Your task to perform on an android device: turn off priority inbox in the gmail app Image 0: 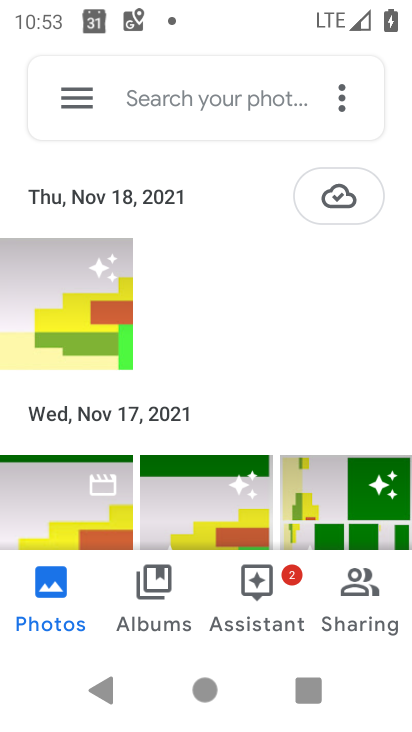
Step 0: press home button
Your task to perform on an android device: turn off priority inbox in the gmail app Image 1: 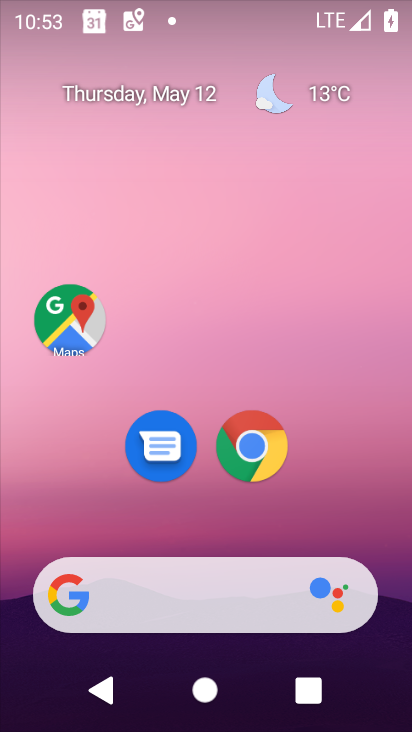
Step 1: drag from (291, 617) to (236, 42)
Your task to perform on an android device: turn off priority inbox in the gmail app Image 2: 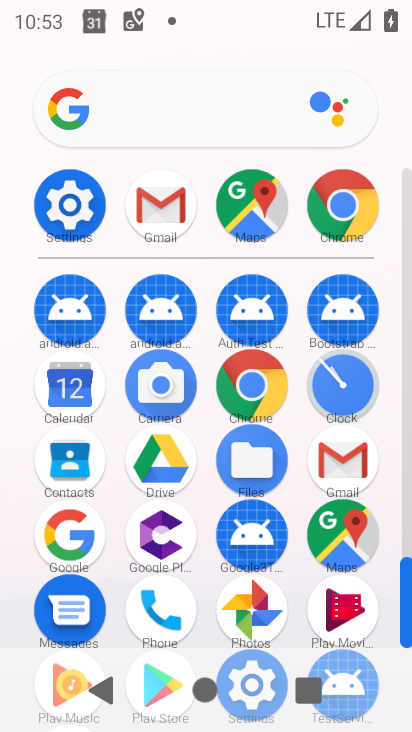
Step 2: click (357, 457)
Your task to perform on an android device: turn off priority inbox in the gmail app Image 3: 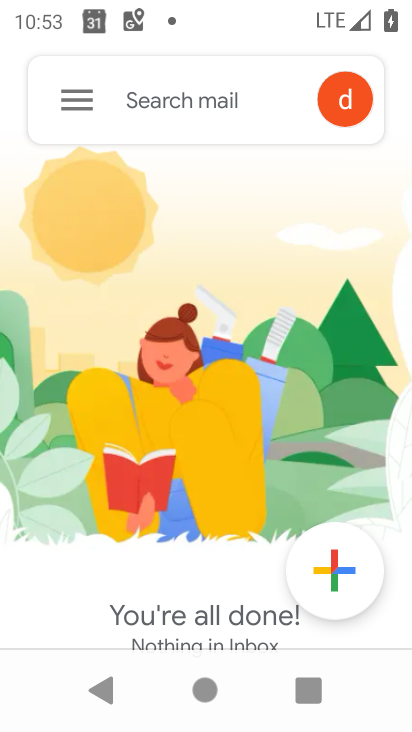
Step 3: click (88, 95)
Your task to perform on an android device: turn off priority inbox in the gmail app Image 4: 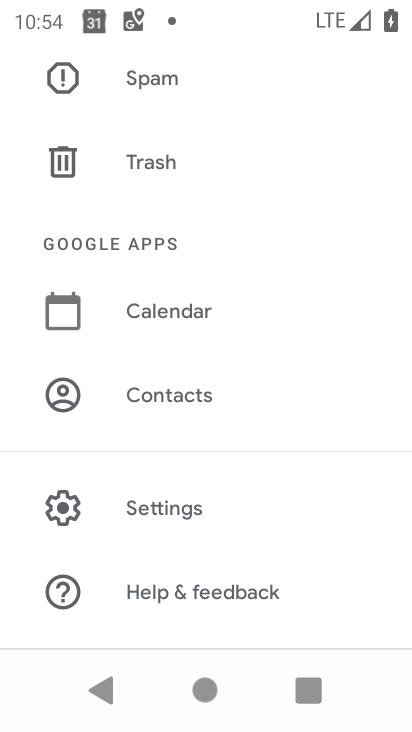
Step 4: click (233, 517)
Your task to perform on an android device: turn off priority inbox in the gmail app Image 5: 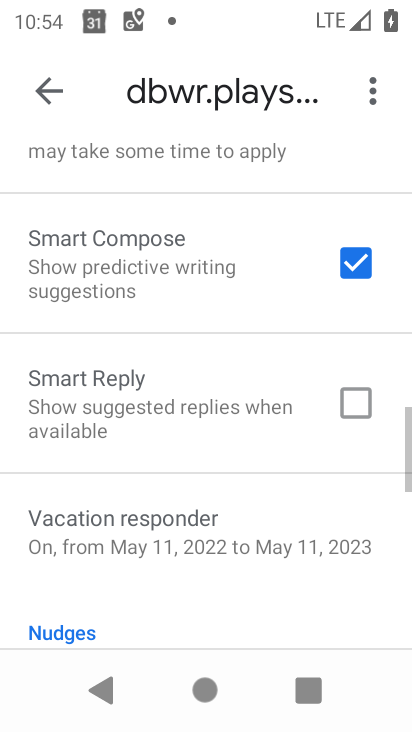
Step 5: drag from (167, 263) to (340, 729)
Your task to perform on an android device: turn off priority inbox in the gmail app Image 6: 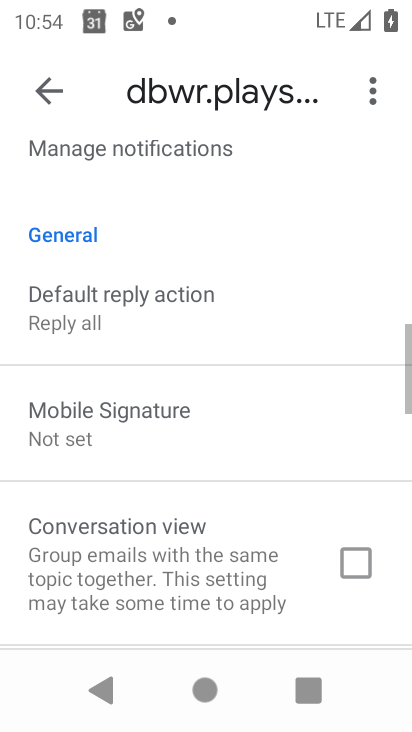
Step 6: drag from (194, 243) to (229, 651)
Your task to perform on an android device: turn off priority inbox in the gmail app Image 7: 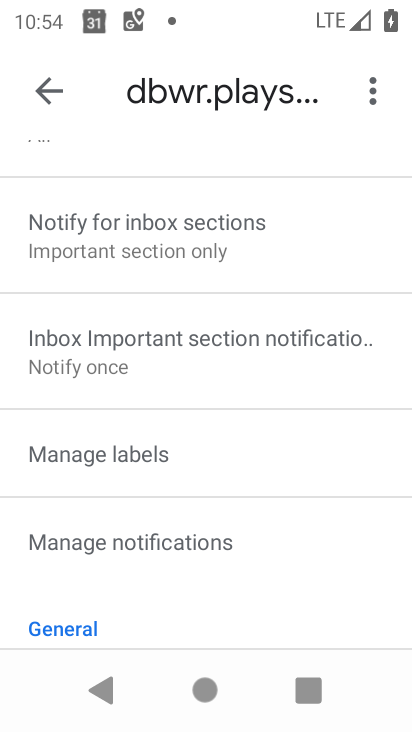
Step 7: drag from (155, 233) to (177, 661)
Your task to perform on an android device: turn off priority inbox in the gmail app Image 8: 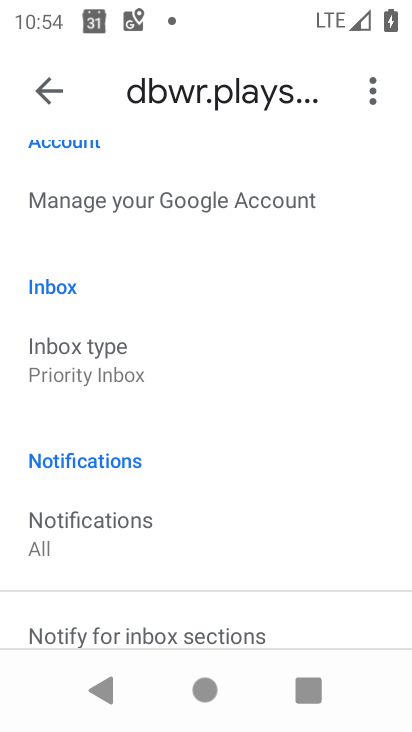
Step 8: click (156, 366)
Your task to perform on an android device: turn off priority inbox in the gmail app Image 9: 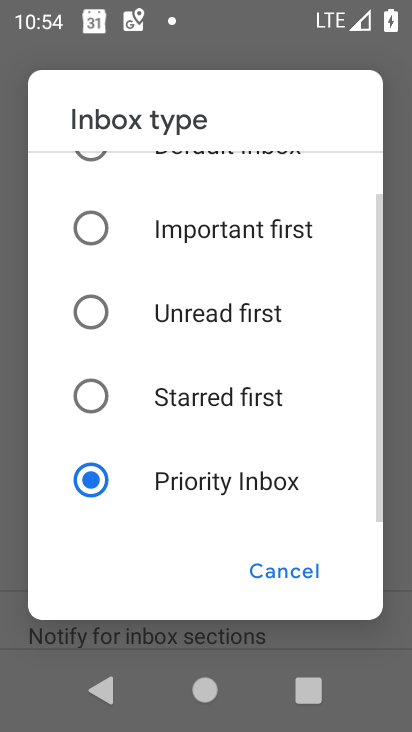
Step 9: click (82, 224)
Your task to perform on an android device: turn off priority inbox in the gmail app Image 10: 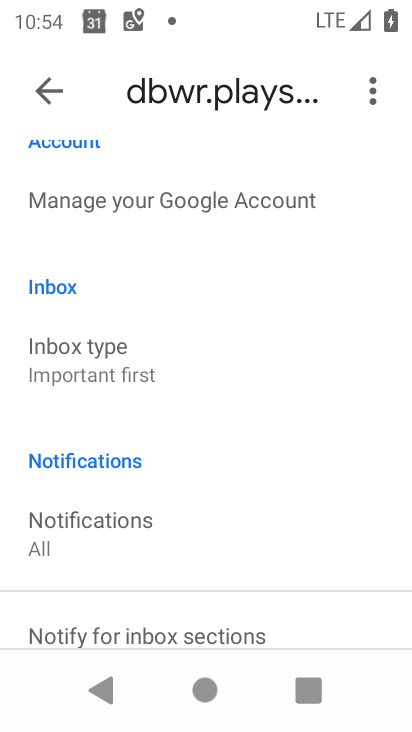
Step 10: task complete